Your task to perform on an android device: Find coffee shops on Maps Image 0: 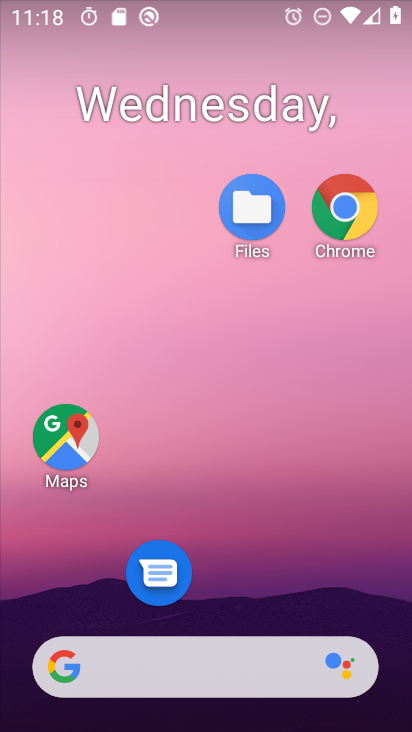
Step 0: press home button
Your task to perform on an android device: Find coffee shops on Maps Image 1: 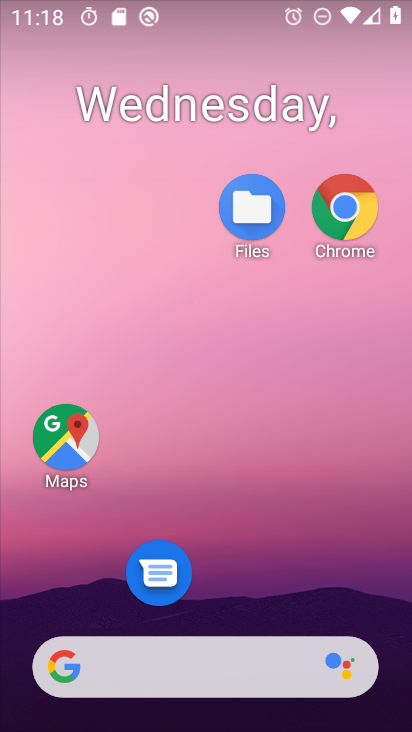
Step 1: drag from (221, 647) to (292, 50)
Your task to perform on an android device: Find coffee shops on Maps Image 2: 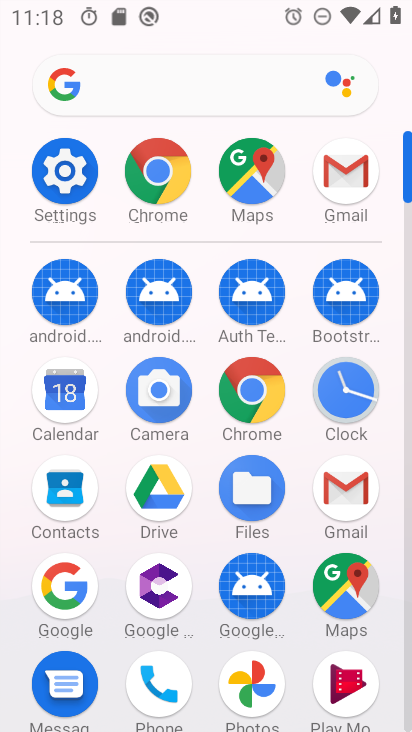
Step 2: click (346, 592)
Your task to perform on an android device: Find coffee shops on Maps Image 3: 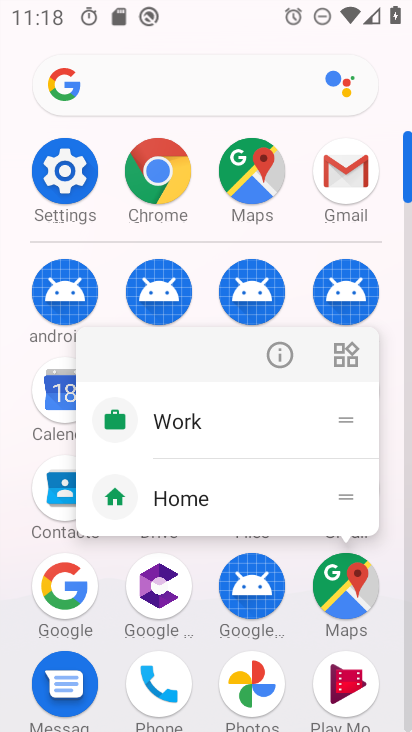
Step 3: click (350, 602)
Your task to perform on an android device: Find coffee shops on Maps Image 4: 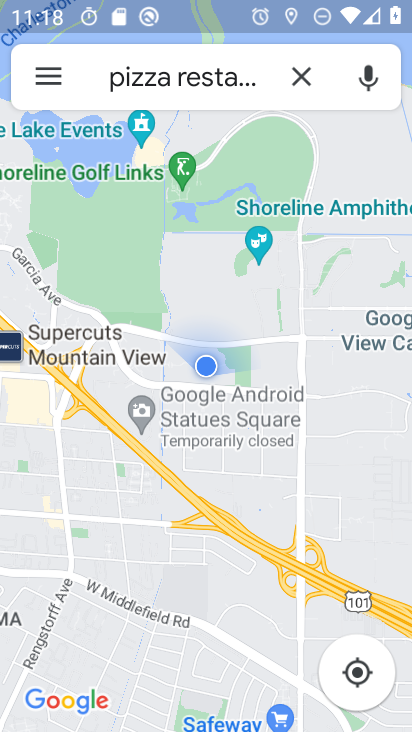
Step 4: click (303, 84)
Your task to perform on an android device: Find coffee shops on Maps Image 5: 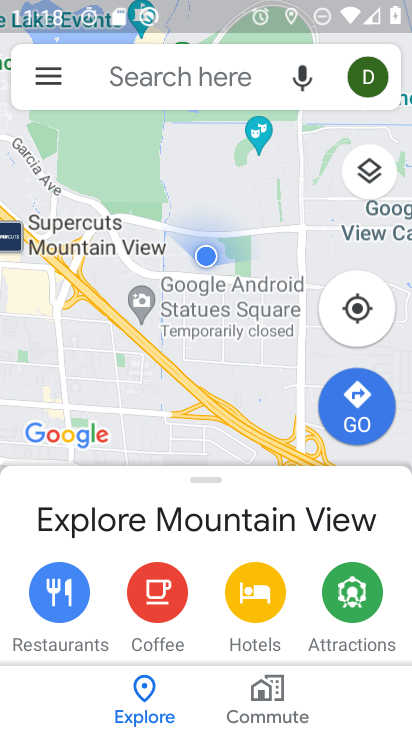
Step 5: click (198, 79)
Your task to perform on an android device: Find coffee shops on Maps Image 6: 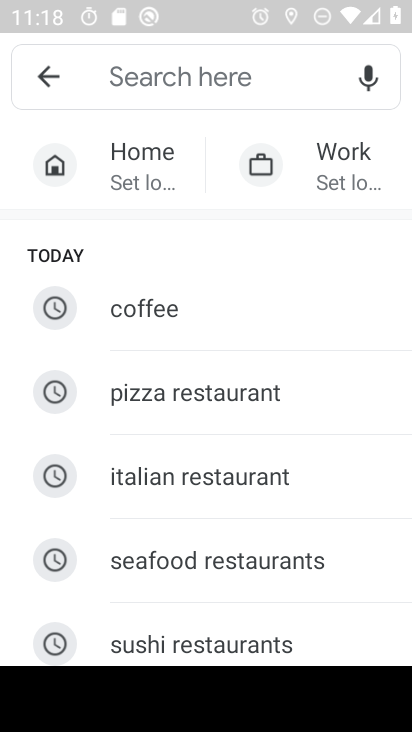
Step 6: type "coffee shops"
Your task to perform on an android device: Find coffee shops on Maps Image 7: 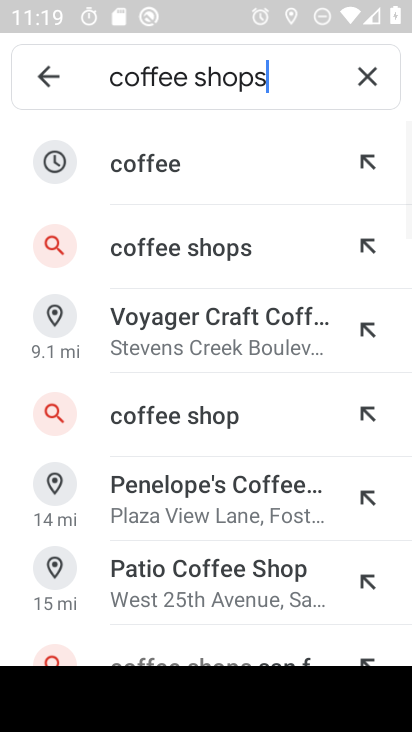
Step 7: click (208, 249)
Your task to perform on an android device: Find coffee shops on Maps Image 8: 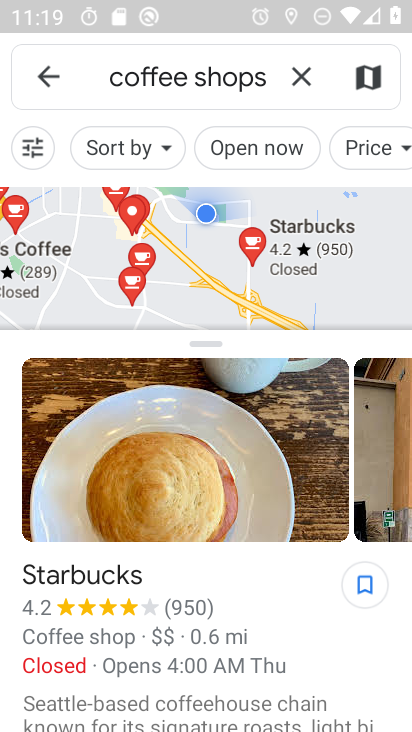
Step 8: task complete